Your task to perform on an android device: turn off javascript in the chrome app Image 0: 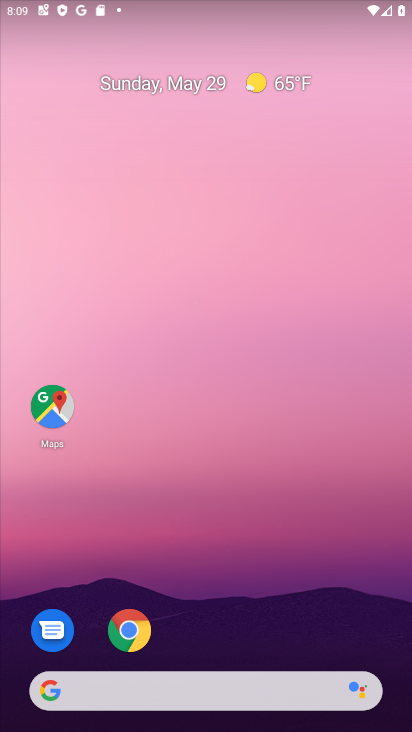
Step 0: click (126, 624)
Your task to perform on an android device: turn off javascript in the chrome app Image 1: 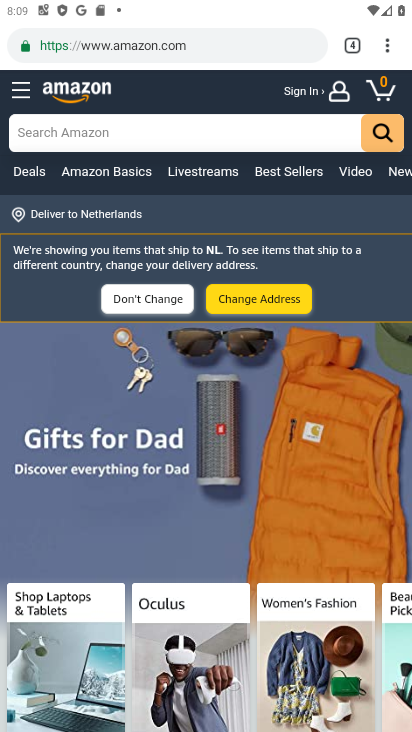
Step 1: click (387, 48)
Your task to perform on an android device: turn off javascript in the chrome app Image 2: 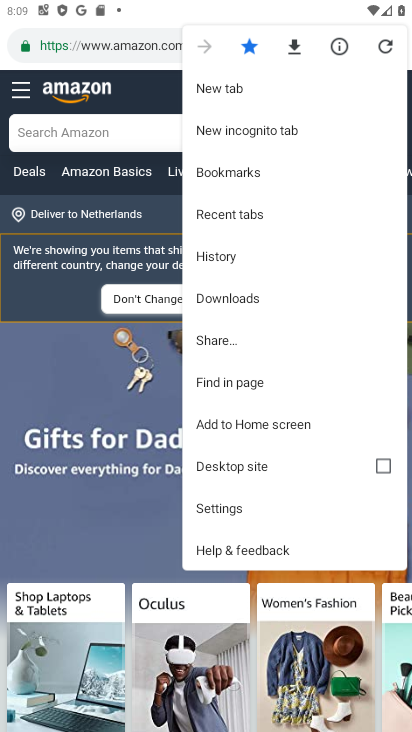
Step 2: click (220, 507)
Your task to perform on an android device: turn off javascript in the chrome app Image 3: 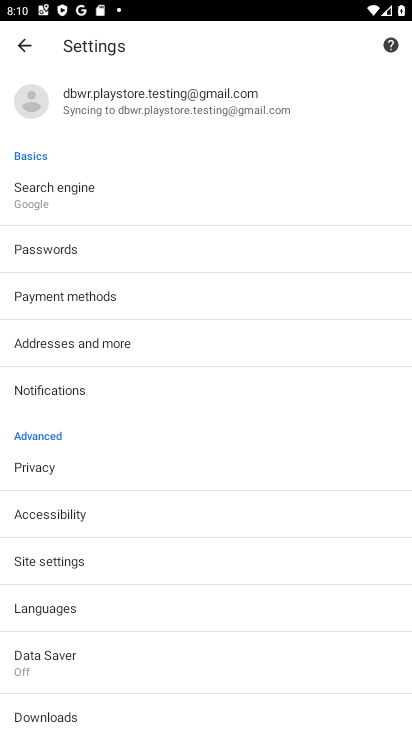
Step 3: click (52, 558)
Your task to perform on an android device: turn off javascript in the chrome app Image 4: 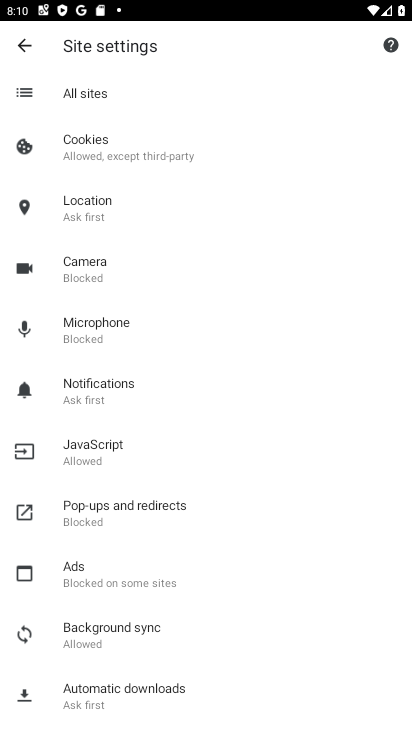
Step 4: click (92, 452)
Your task to perform on an android device: turn off javascript in the chrome app Image 5: 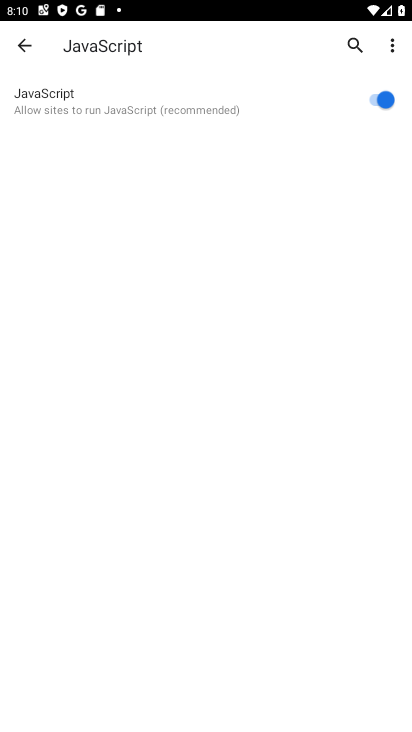
Step 5: click (374, 96)
Your task to perform on an android device: turn off javascript in the chrome app Image 6: 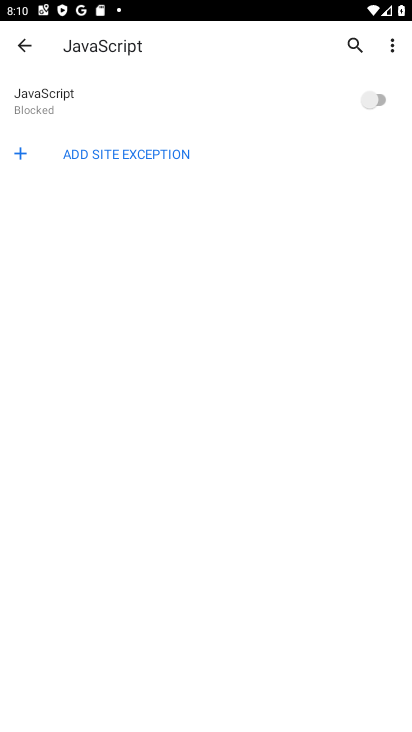
Step 6: task complete